Your task to perform on an android device: Open calendar and show me the first week of next month Image 0: 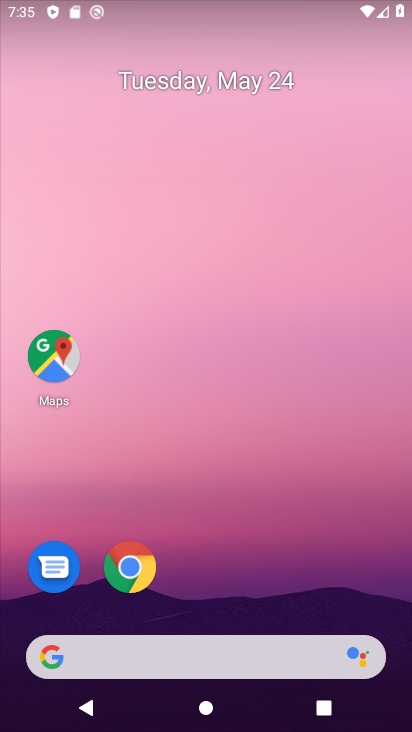
Step 0: click (137, 74)
Your task to perform on an android device: Open calendar and show me the first week of next month Image 1: 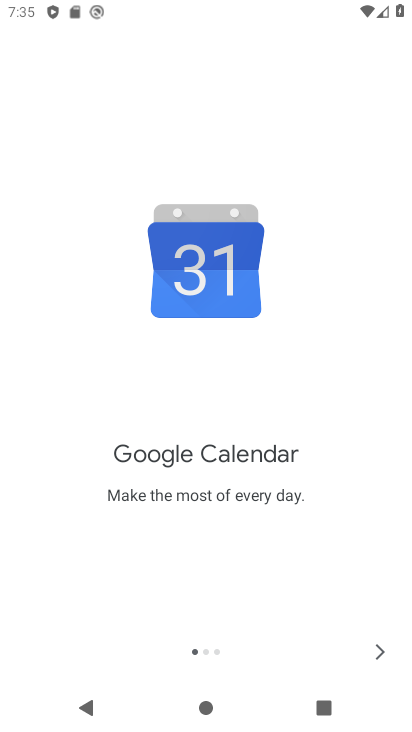
Step 1: click (386, 657)
Your task to perform on an android device: Open calendar and show me the first week of next month Image 2: 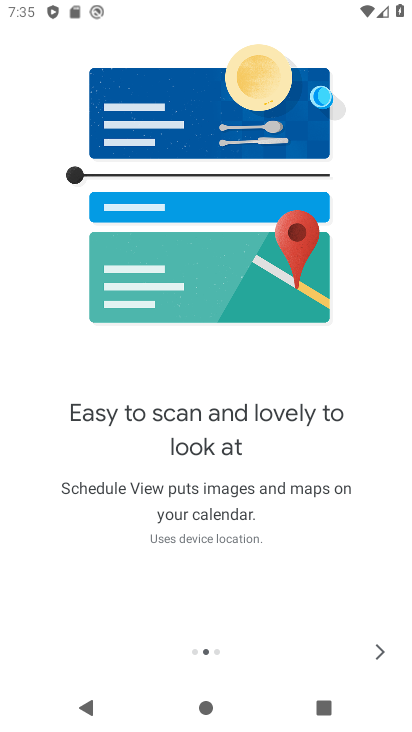
Step 2: click (386, 657)
Your task to perform on an android device: Open calendar and show me the first week of next month Image 3: 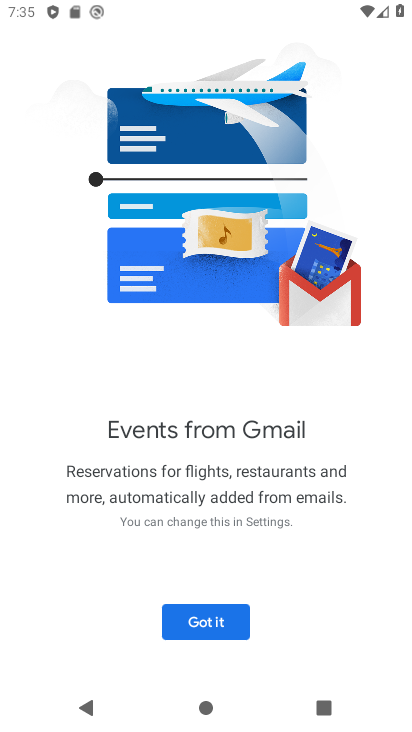
Step 3: click (238, 619)
Your task to perform on an android device: Open calendar and show me the first week of next month Image 4: 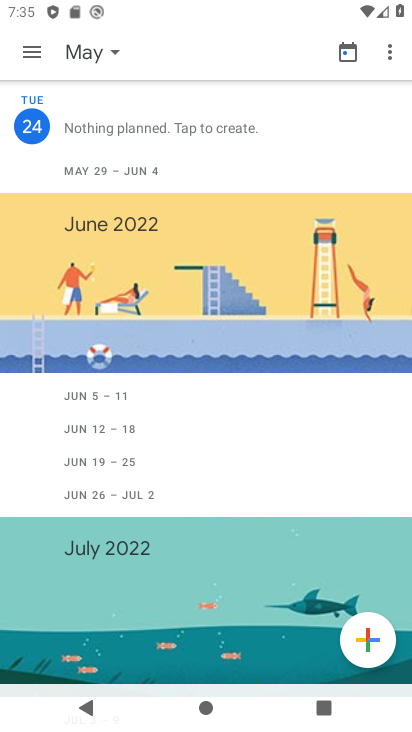
Step 4: click (96, 56)
Your task to perform on an android device: Open calendar and show me the first week of next month Image 5: 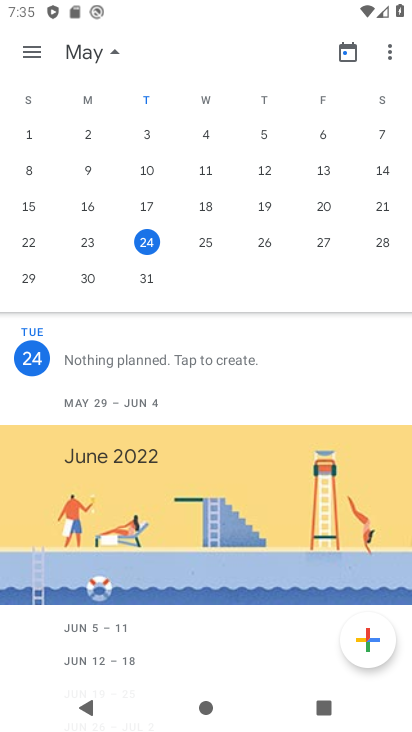
Step 5: drag from (295, 291) to (107, 306)
Your task to perform on an android device: Open calendar and show me the first week of next month Image 6: 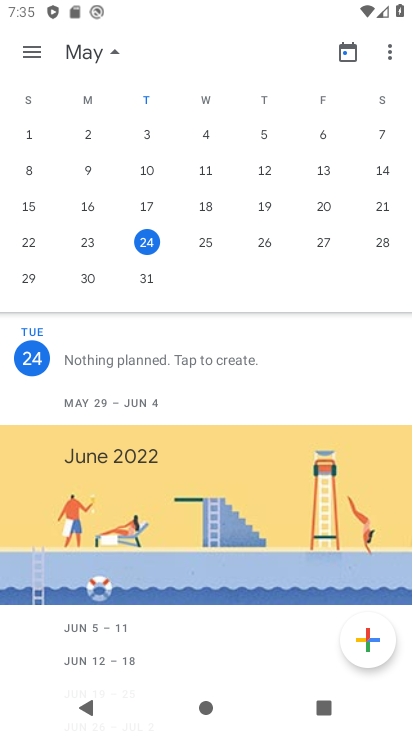
Step 6: drag from (358, 273) to (24, 257)
Your task to perform on an android device: Open calendar and show me the first week of next month Image 7: 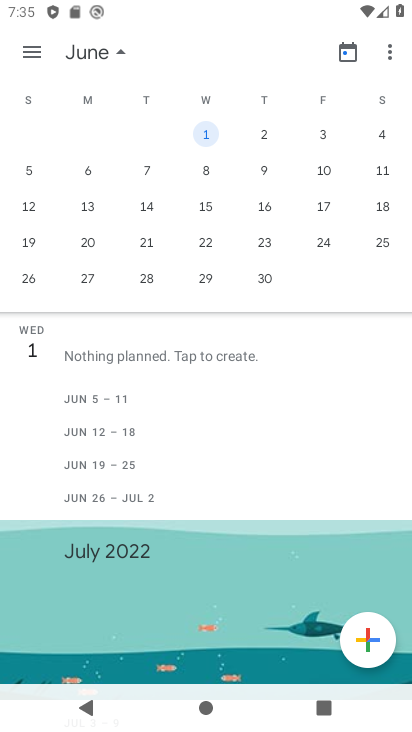
Step 7: click (266, 128)
Your task to perform on an android device: Open calendar and show me the first week of next month Image 8: 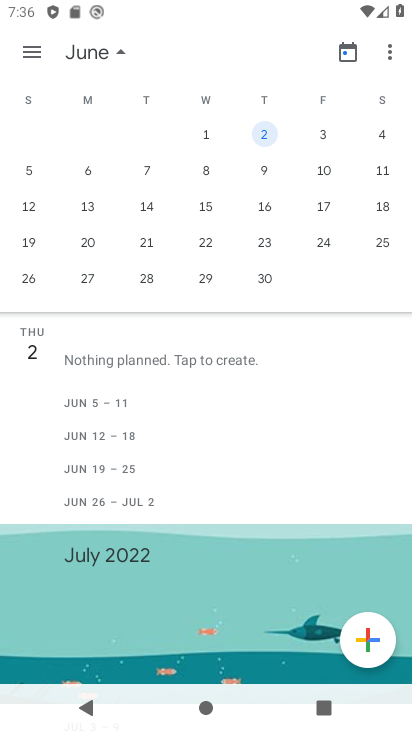
Step 8: task complete